Your task to perform on an android device: Add "razer blade" to the cart on target Image 0: 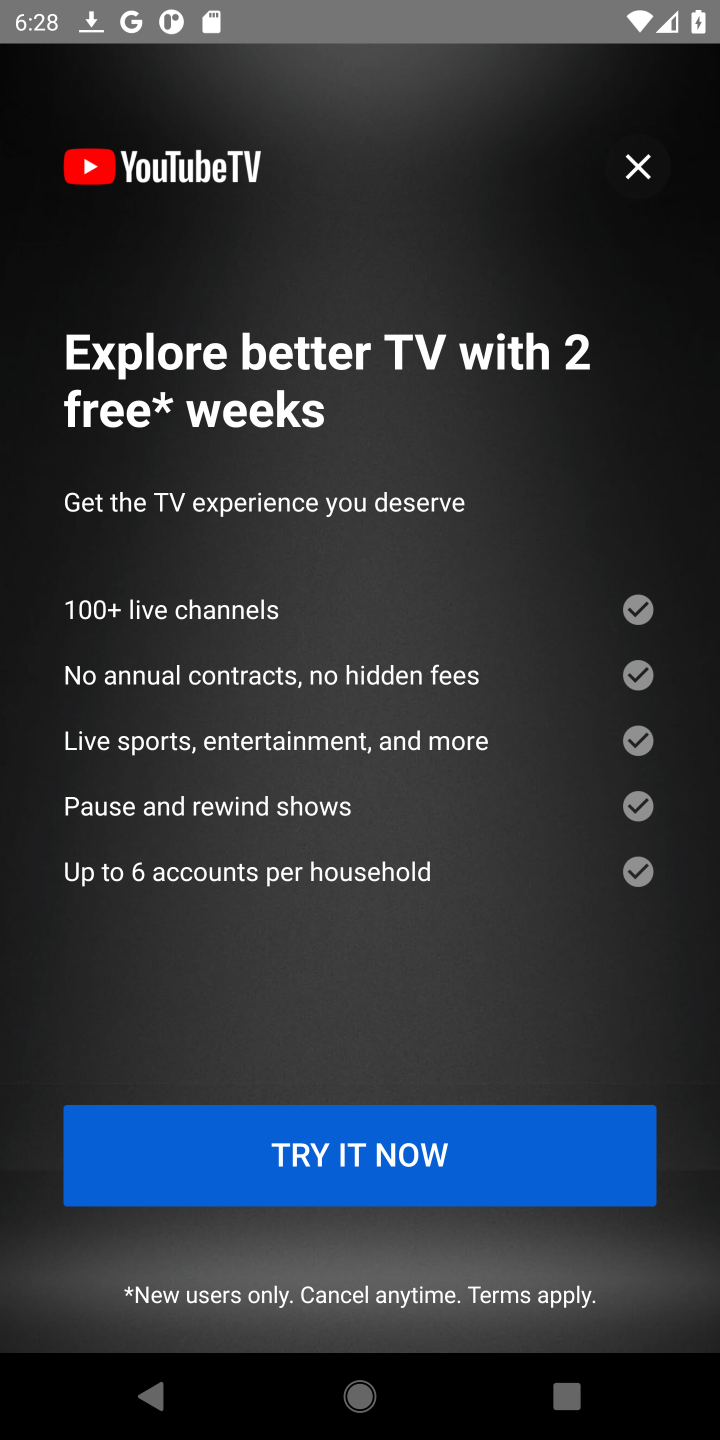
Step 0: press home button
Your task to perform on an android device: Add "razer blade" to the cart on target Image 1: 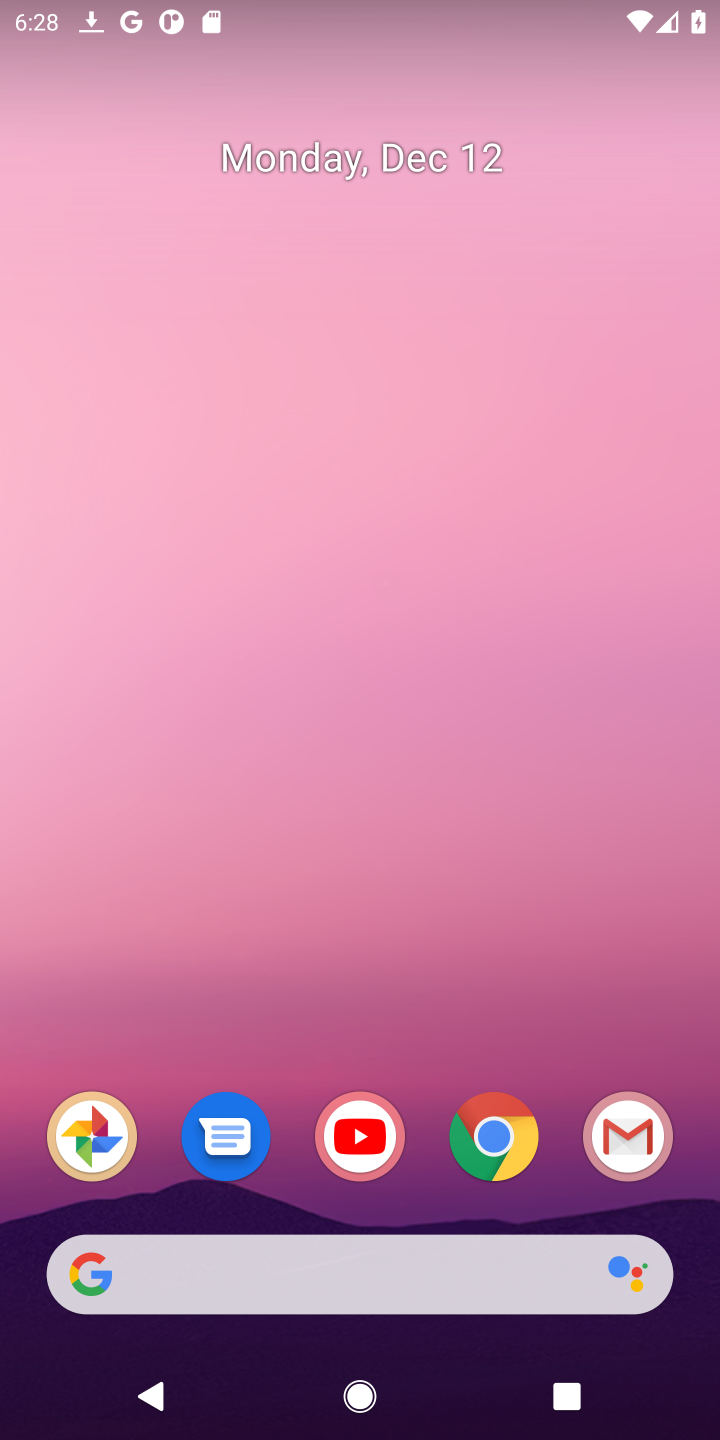
Step 1: click (515, 1143)
Your task to perform on an android device: Add "razer blade" to the cart on target Image 2: 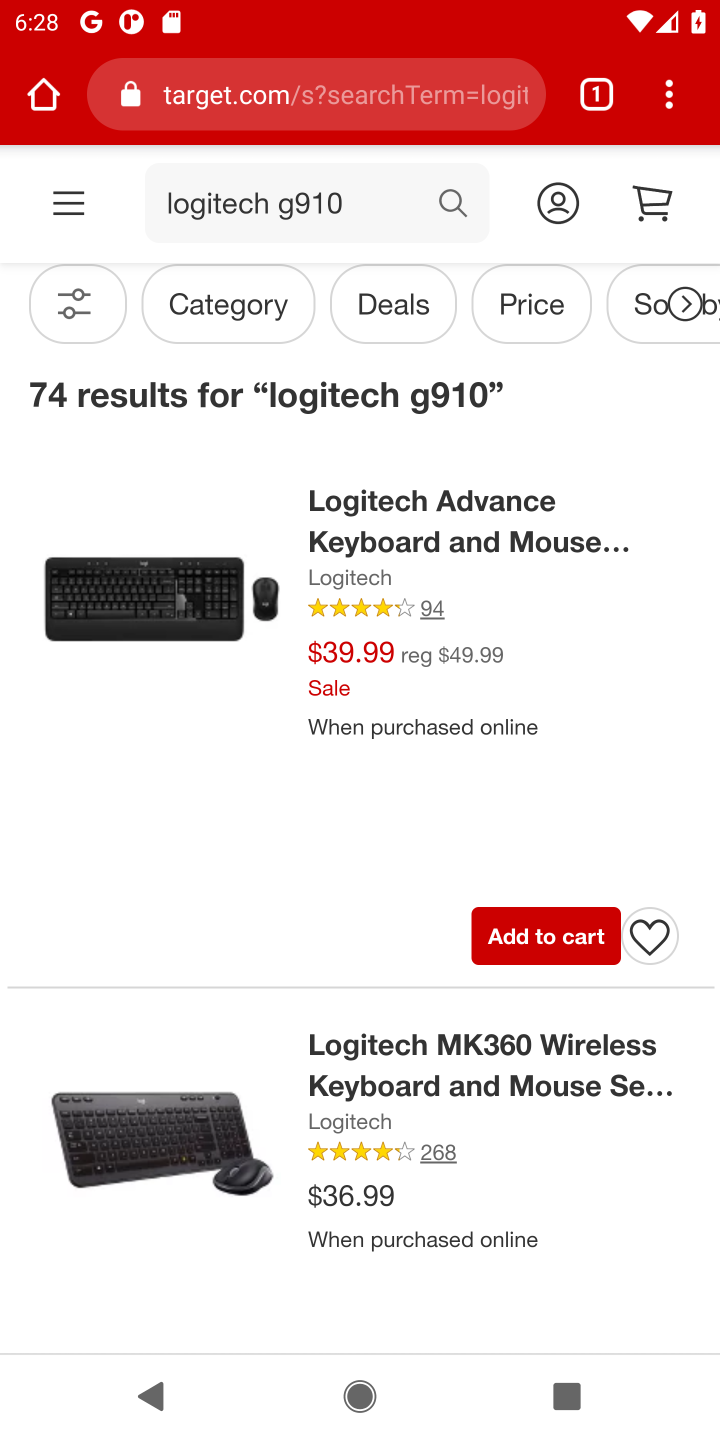
Step 2: click (175, 222)
Your task to perform on an android device: Add "razer blade" to the cart on target Image 3: 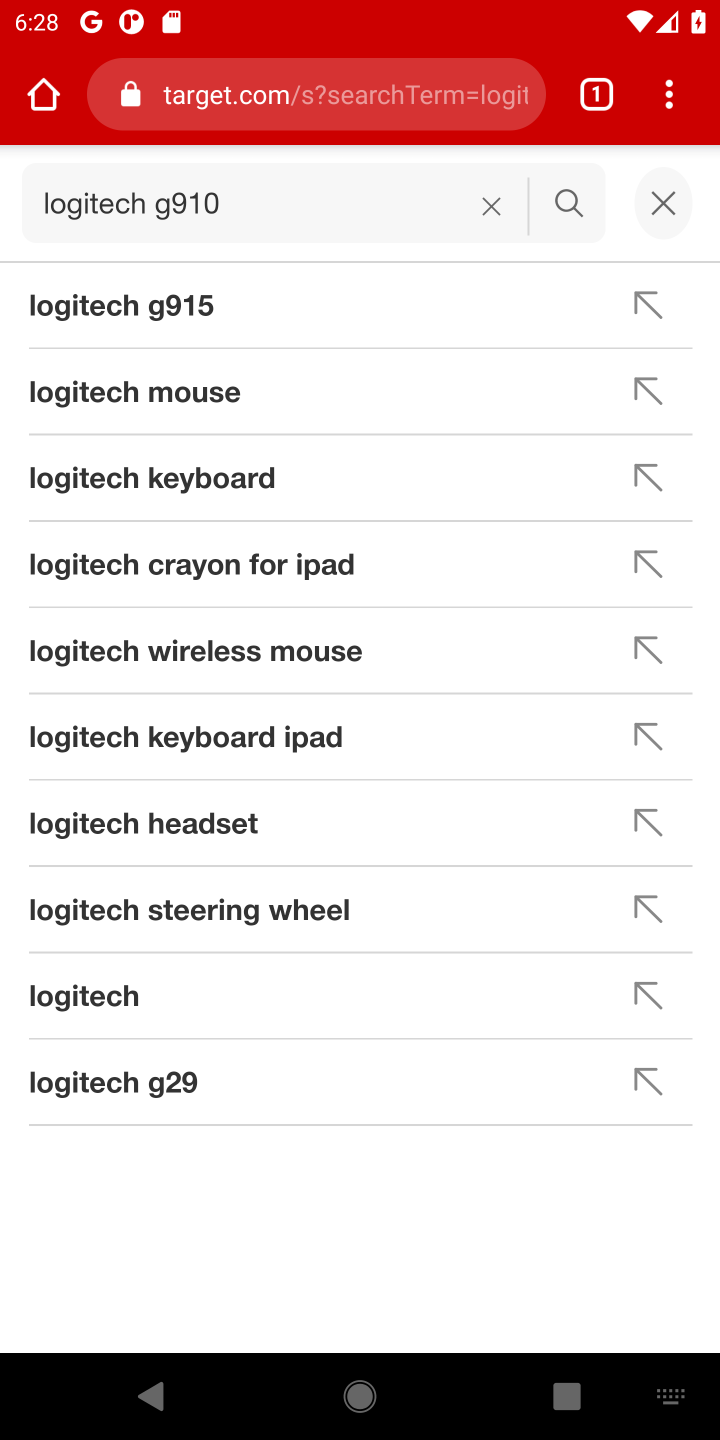
Step 3: click (494, 206)
Your task to perform on an android device: Add "razer blade" to the cart on target Image 4: 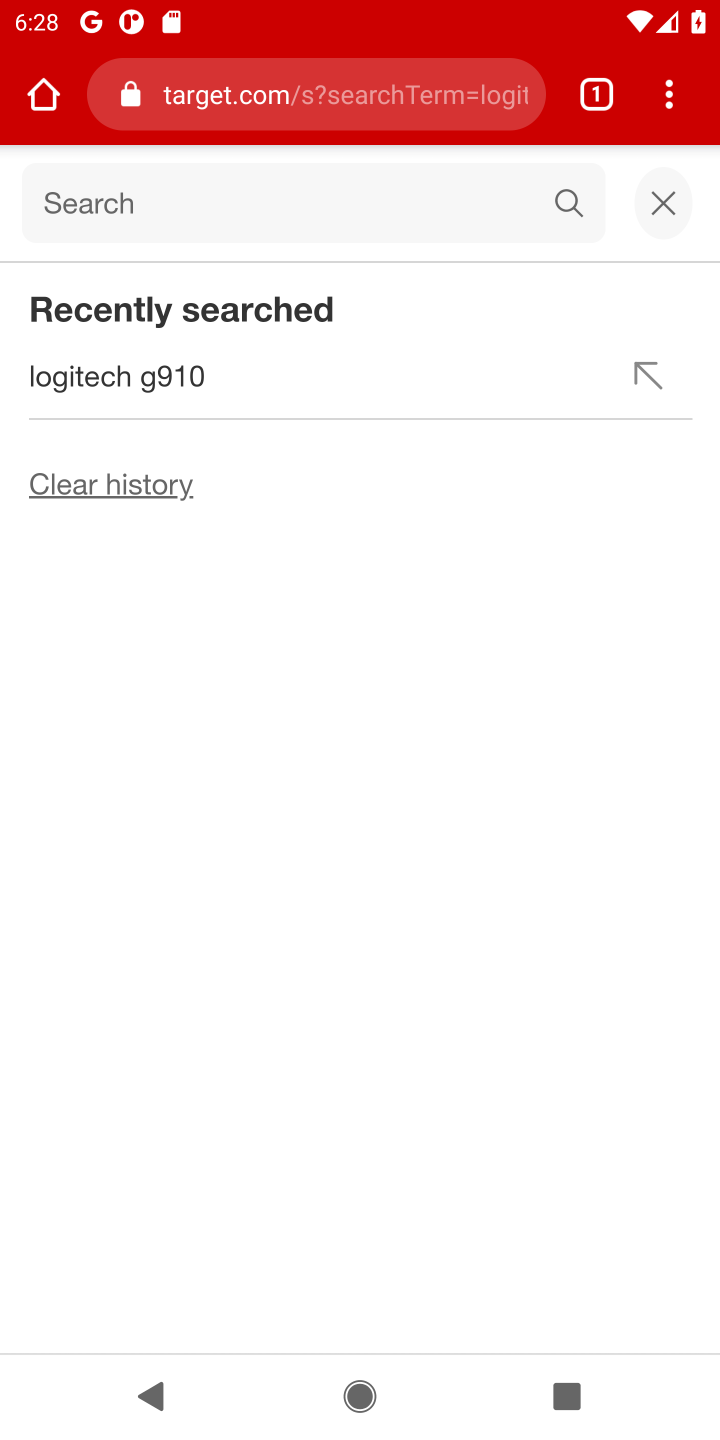
Step 4: click (140, 212)
Your task to perform on an android device: Add "razer blade" to the cart on target Image 5: 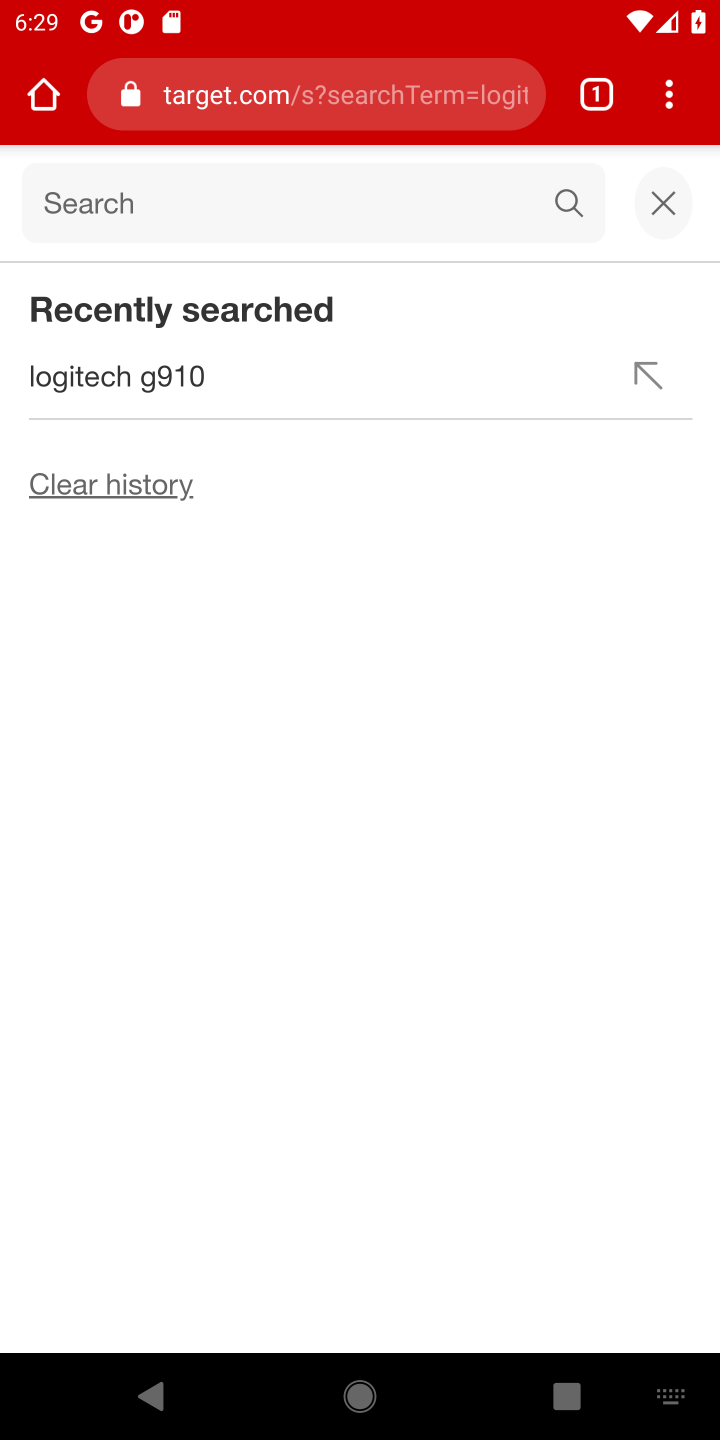
Step 5: type "razer blade"
Your task to perform on an android device: Add "razer blade" to the cart on target Image 6: 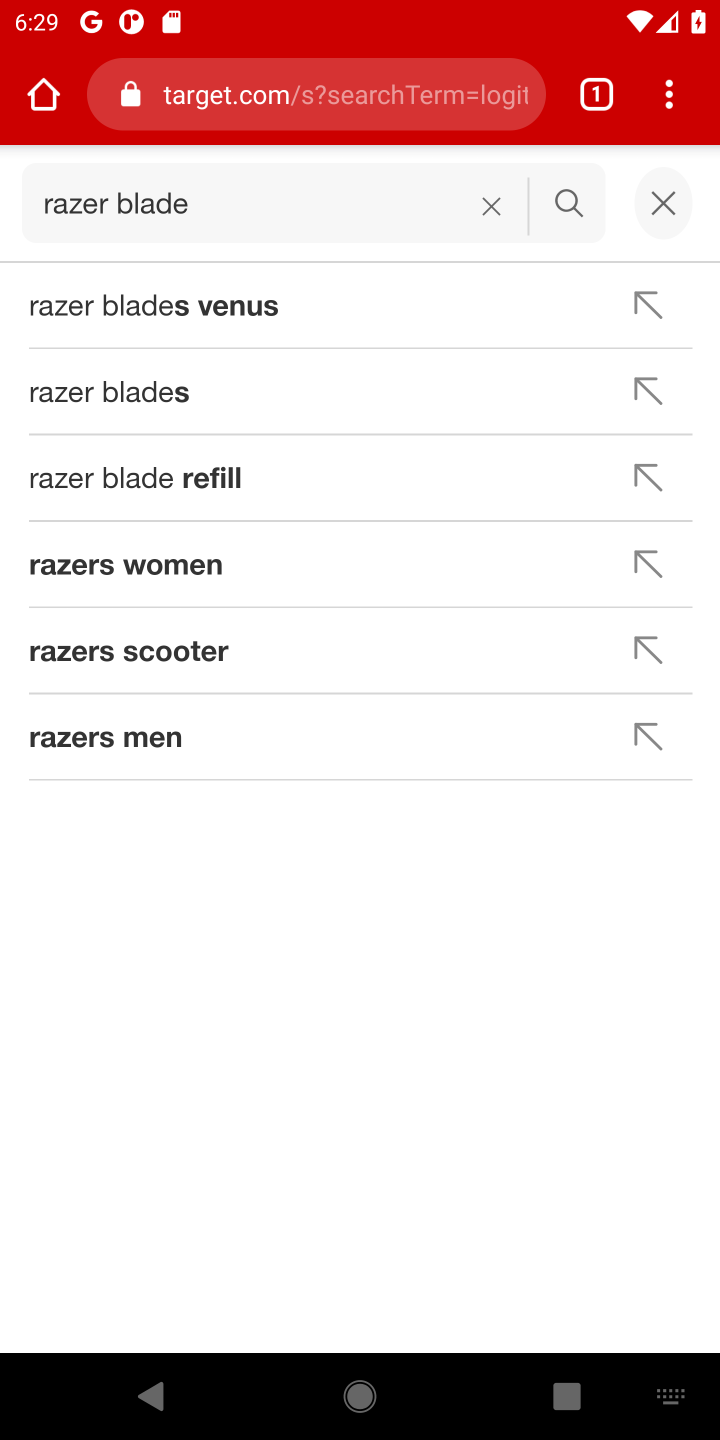
Step 6: click (566, 195)
Your task to perform on an android device: Add "razer blade" to the cart on target Image 7: 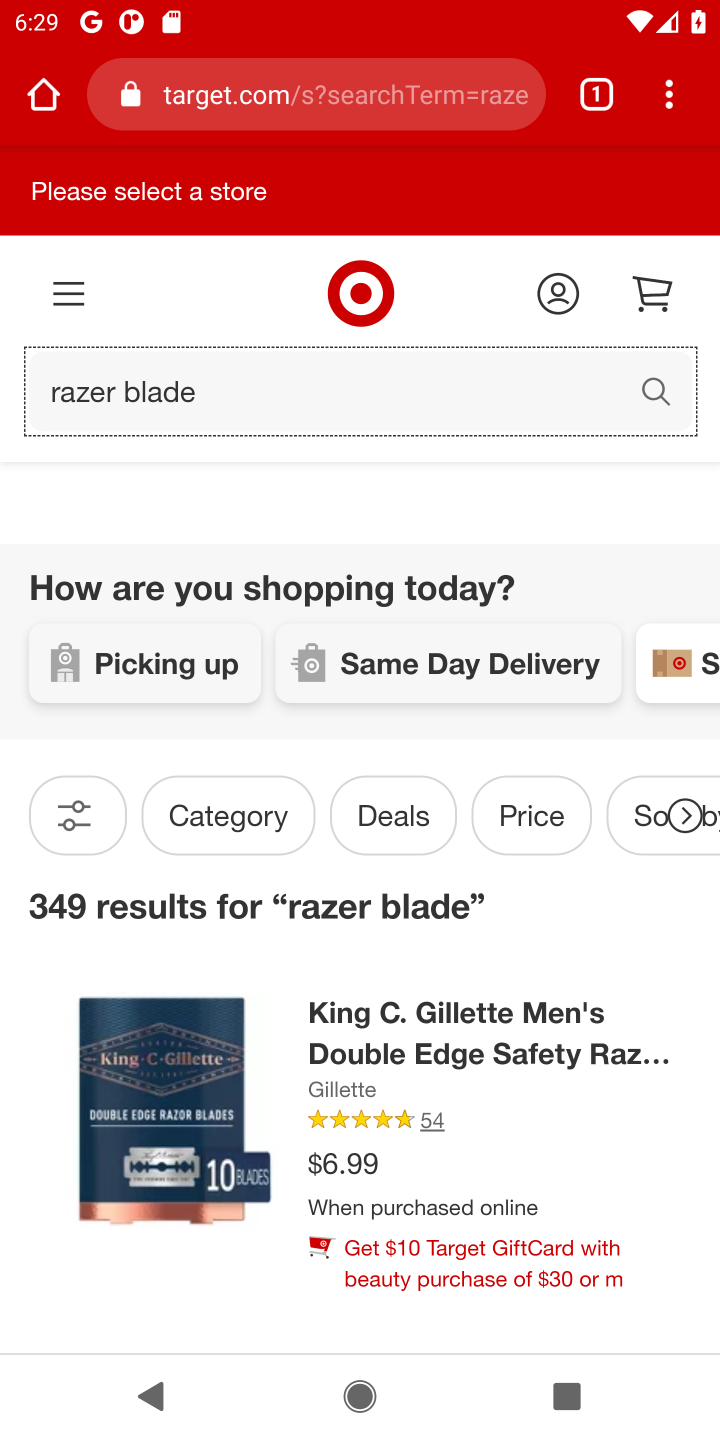
Step 7: task complete